Your task to perform on an android device: Open the stopwatch Image 0: 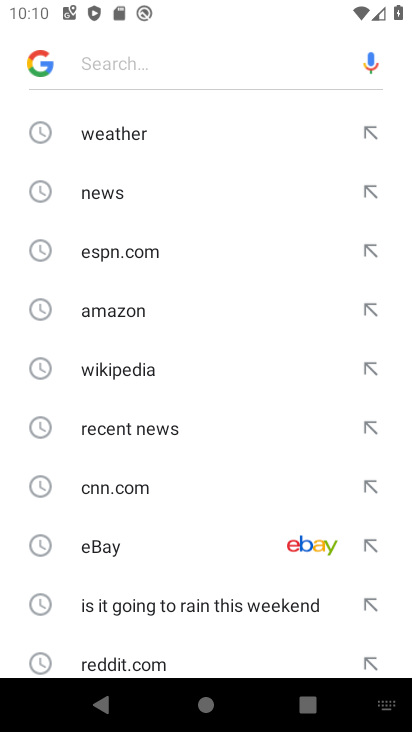
Step 0: press home button
Your task to perform on an android device: Open the stopwatch Image 1: 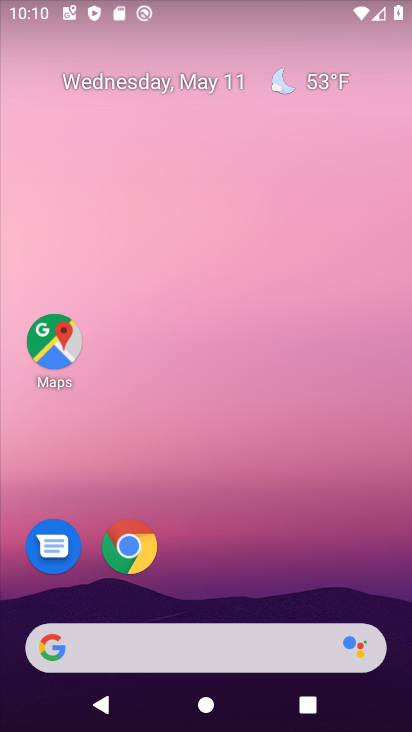
Step 1: drag from (390, 605) to (296, 74)
Your task to perform on an android device: Open the stopwatch Image 2: 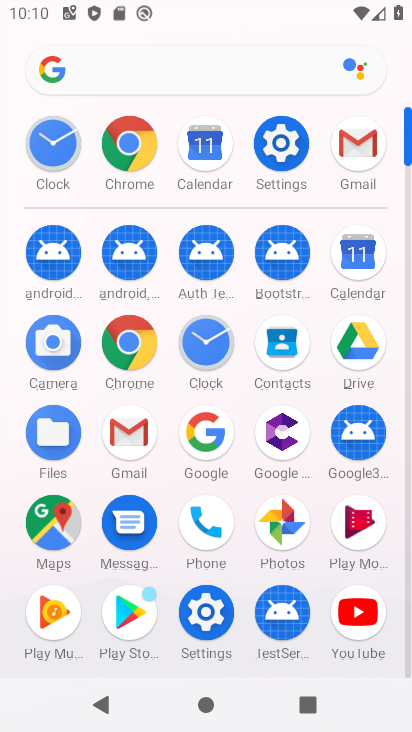
Step 2: click (201, 359)
Your task to perform on an android device: Open the stopwatch Image 3: 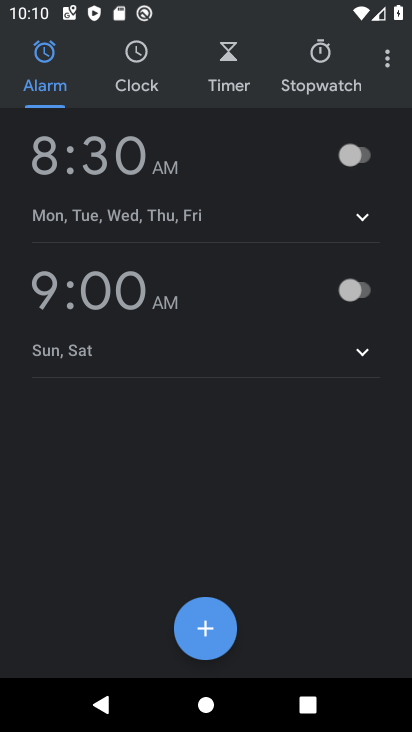
Step 3: click (323, 67)
Your task to perform on an android device: Open the stopwatch Image 4: 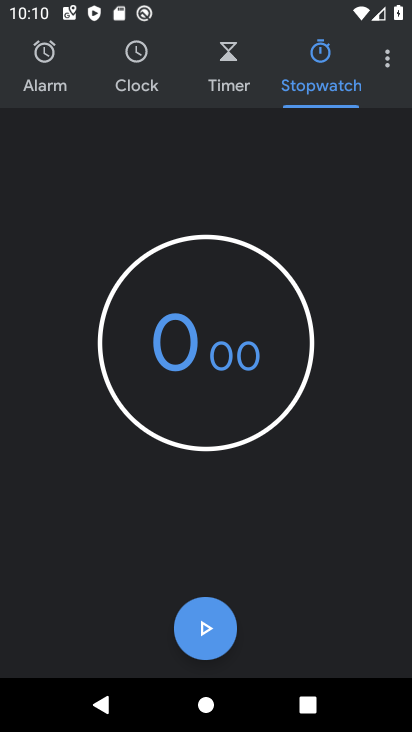
Step 4: task complete